Your task to perform on an android device: Open the calendar app, open the side menu, and click the "Day" option Image 0: 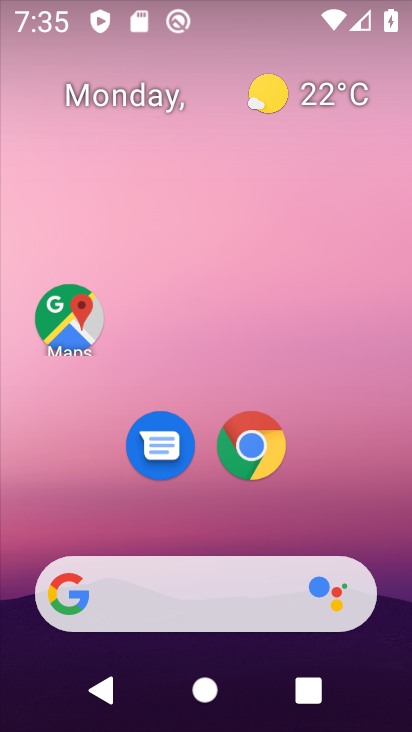
Step 0: drag from (343, 500) to (352, 102)
Your task to perform on an android device: Open the calendar app, open the side menu, and click the "Day" option Image 1: 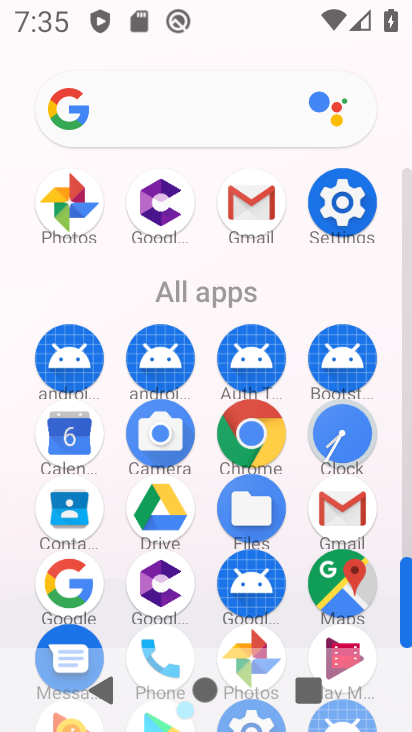
Step 1: click (69, 451)
Your task to perform on an android device: Open the calendar app, open the side menu, and click the "Day" option Image 2: 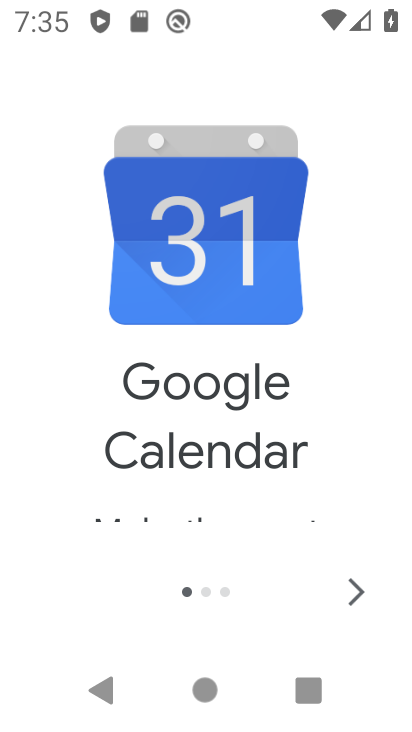
Step 2: click (360, 589)
Your task to perform on an android device: Open the calendar app, open the side menu, and click the "Day" option Image 3: 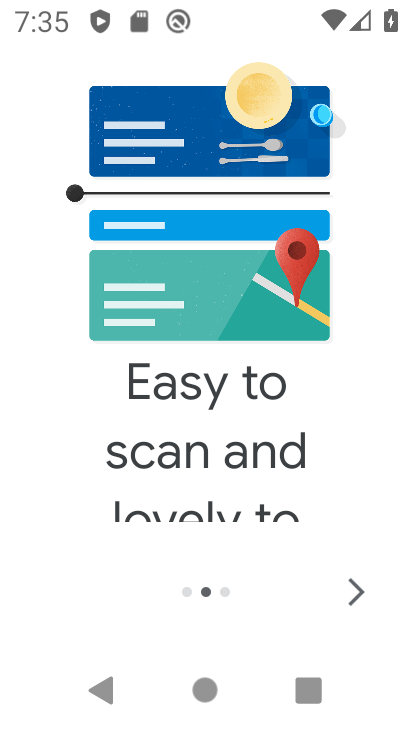
Step 3: click (359, 588)
Your task to perform on an android device: Open the calendar app, open the side menu, and click the "Day" option Image 4: 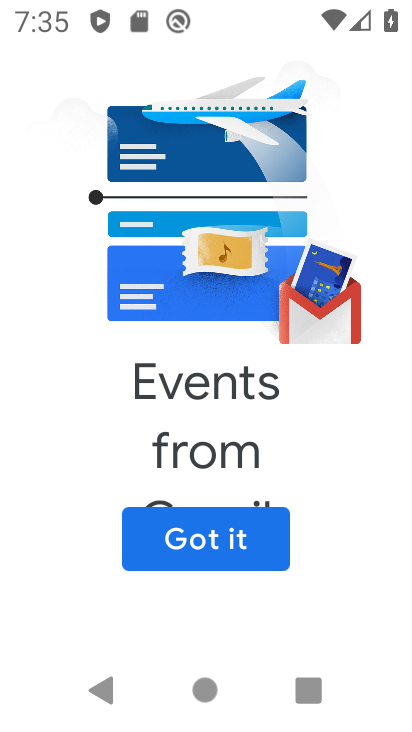
Step 4: click (259, 542)
Your task to perform on an android device: Open the calendar app, open the side menu, and click the "Day" option Image 5: 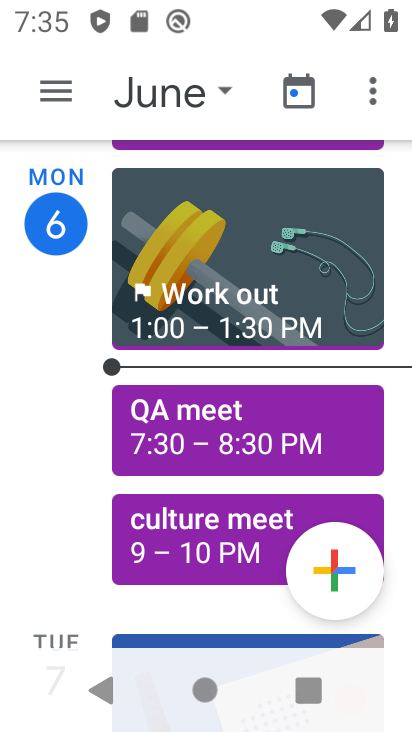
Step 5: click (58, 97)
Your task to perform on an android device: Open the calendar app, open the side menu, and click the "Day" option Image 6: 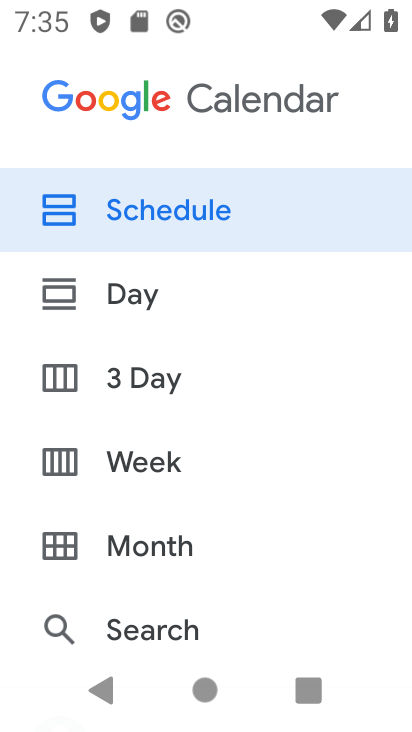
Step 6: click (60, 289)
Your task to perform on an android device: Open the calendar app, open the side menu, and click the "Day" option Image 7: 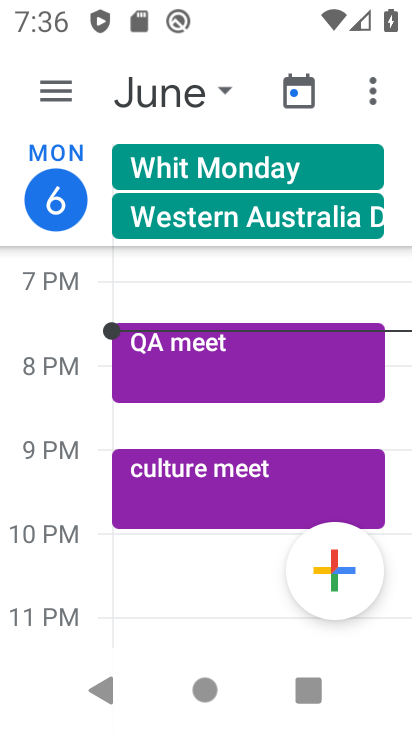
Step 7: task complete